Your task to perform on an android device: snooze an email in the gmail app Image 0: 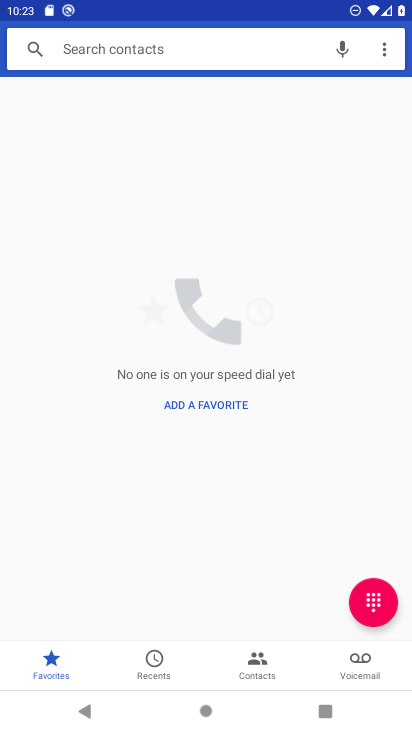
Step 0: press home button
Your task to perform on an android device: snooze an email in the gmail app Image 1: 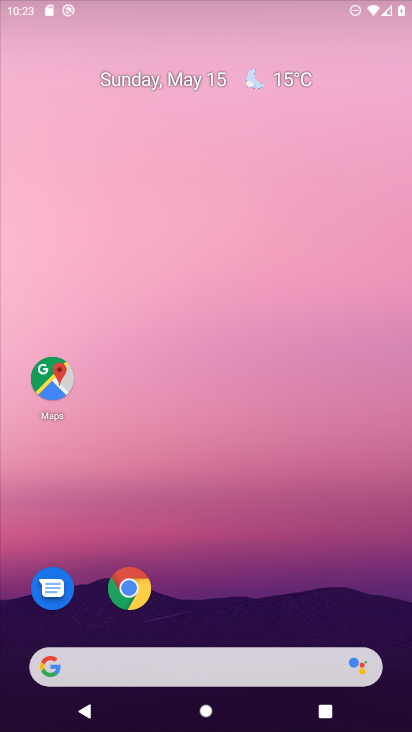
Step 1: drag from (245, 574) to (114, 37)
Your task to perform on an android device: snooze an email in the gmail app Image 2: 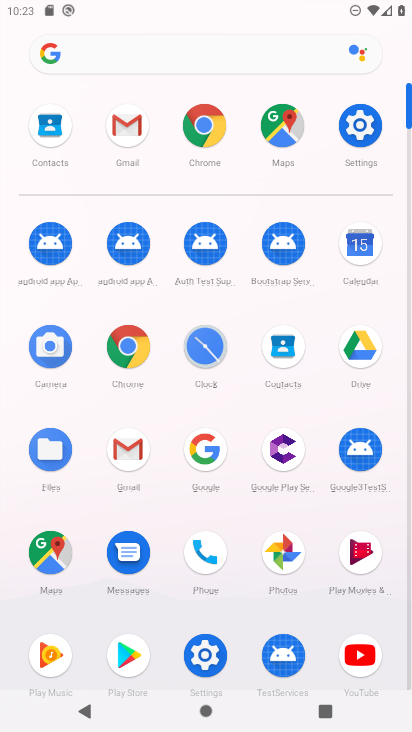
Step 2: click (144, 452)
Your task to perform on an android device: snooze an email in the gmail app Image 3: 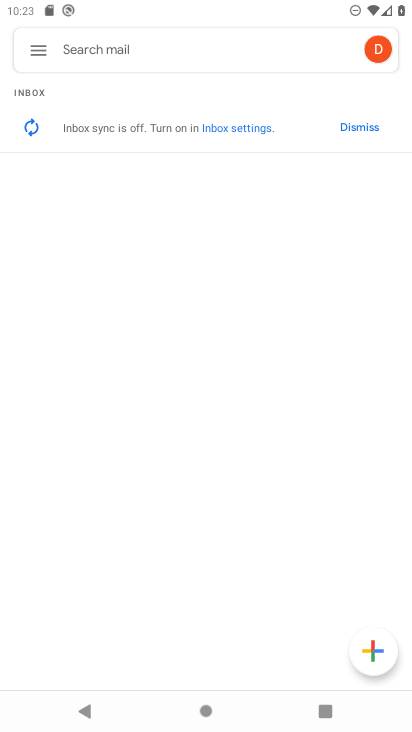
Step 3: click (45, 50)
Your task to perform on an android device: snooze an email in the gmail app Image 4: 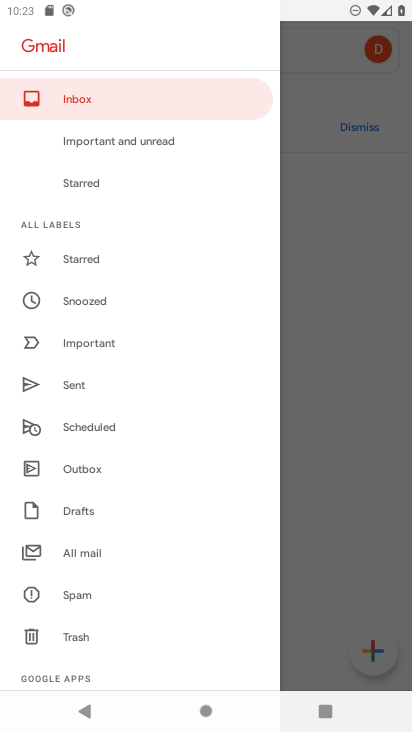
Step 4: drag from (81, 631) to (81, 558)
Your task to perform on an android device: snooze an email in the gmail app Image 5: 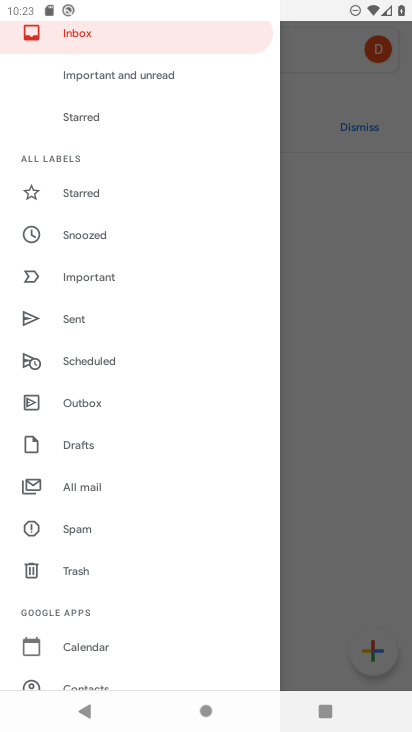
Step 5: click (97, 471)
Your task to perform on an android device: snooze an email in the gmail app Image 6: 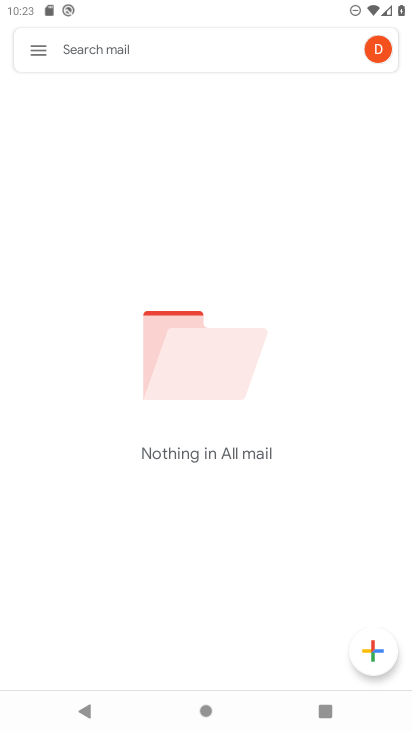
Step 6: task complete